Your task to perform on an android device: Do I have any events this weekend? Image 0: 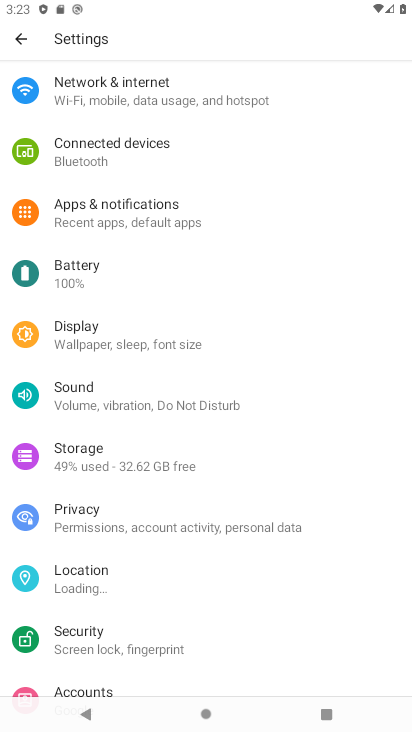
Step 0: press home button
Your task to perform on an android device: Do I have any events this weekend? Image 1: 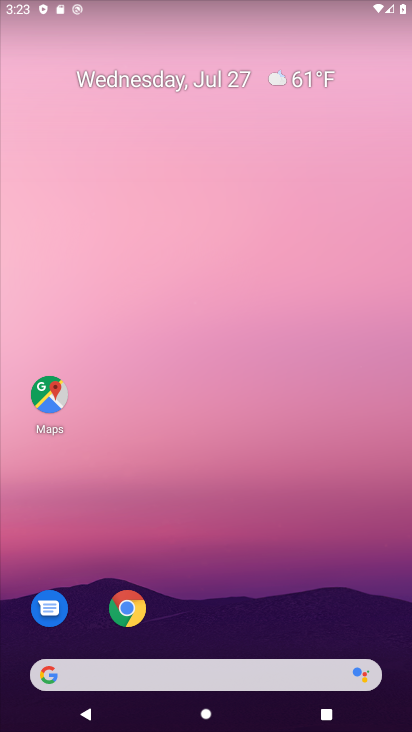
Step 1: drag from (233, 714) to (226, 195)
Your task to perform on an android device: Do I have any events this weekend? Image 2: 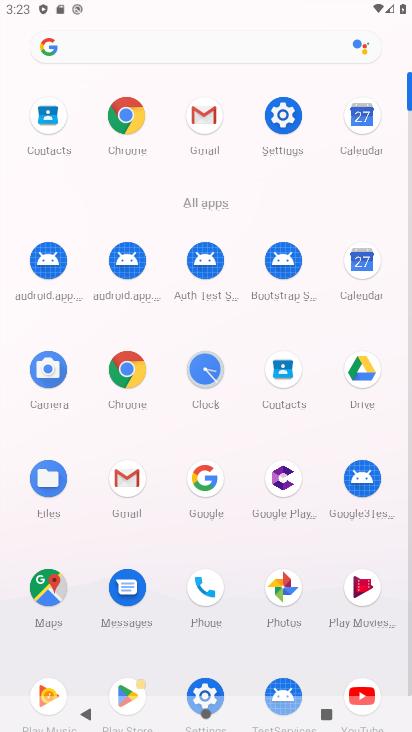
Step 2: click (363, 265)
Your task to perform on an android device: Do I have any events this weekend? Image 3: 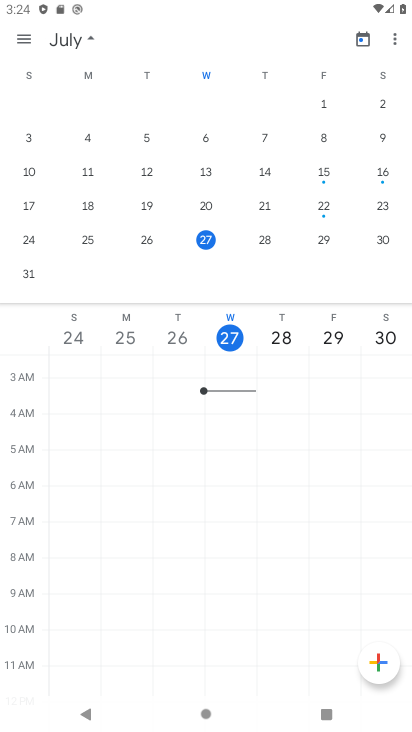
Step 3: click (380, 236)
Your task to perform on an android device: Do I have any events this weekend? Image 4: 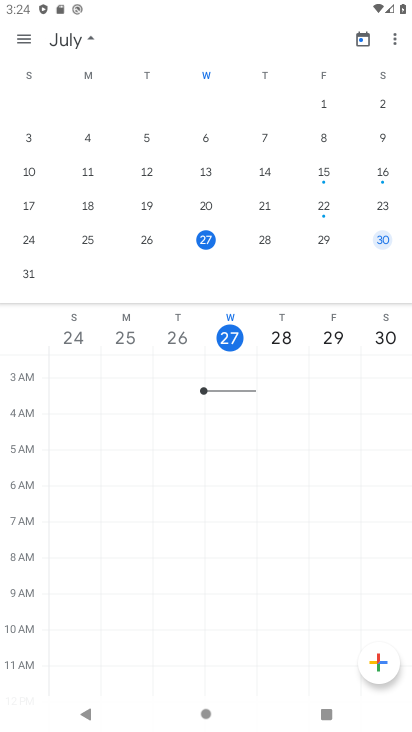
Step 4: click (376, 241)
Your task to perform on an android device: Do I have any events this weekend? Image 5: 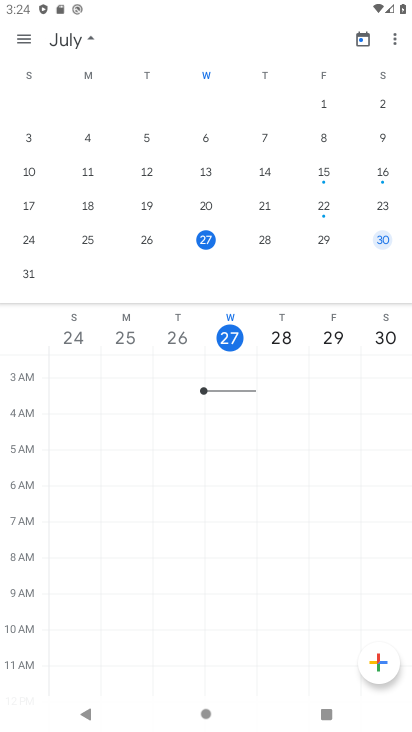
Step 5: click (380, 333)
Your task to perform on an android device: Do I have any events this weekend? Image 6: 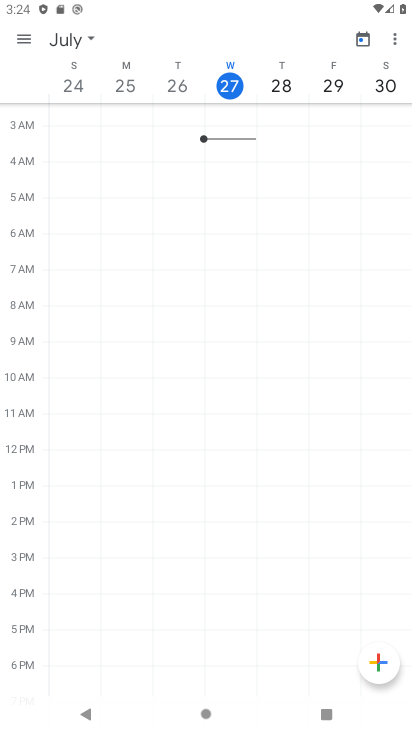
Step 6: click (387, 80)
Your task to perform on an android device: Do I have any events this weekend? Image 7: 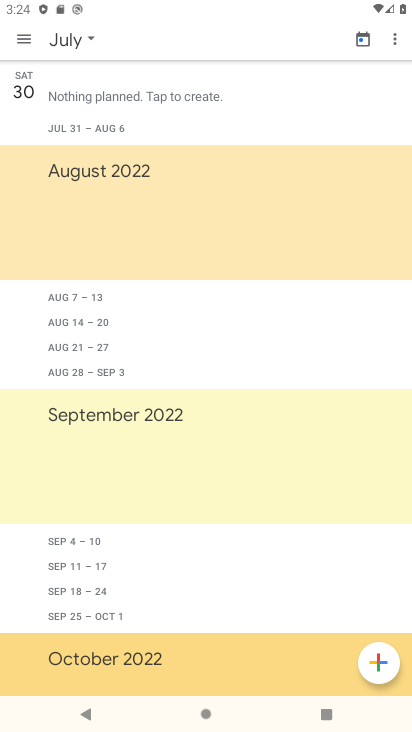
Step 7: task complete